Your task to perform on an android device: uninstall "Expedia: Hotels, Flights & Car" Image 0: 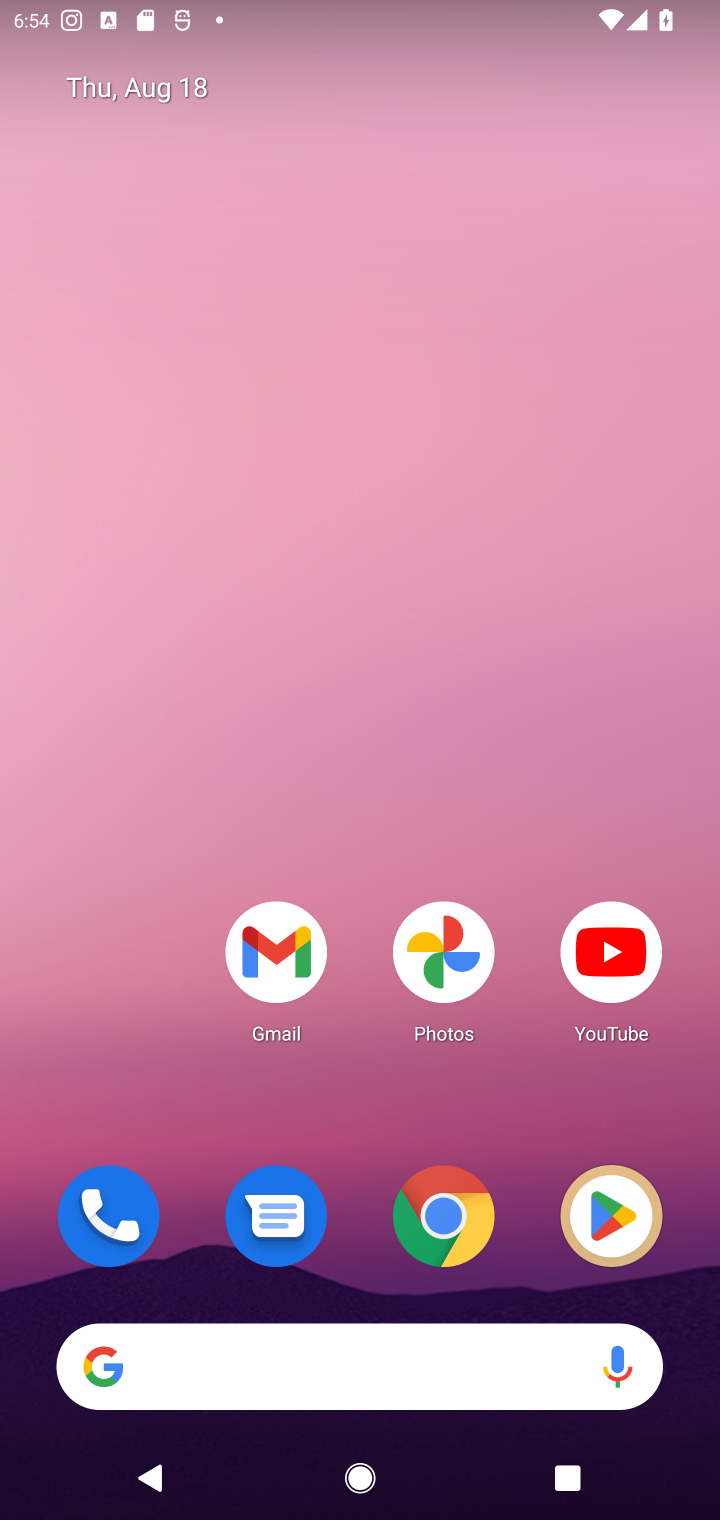
Step 0: click (638, 1180)
Your task to perform on an android device: uninstall "Expedia: Hotels, Flights & Car" Image 1: 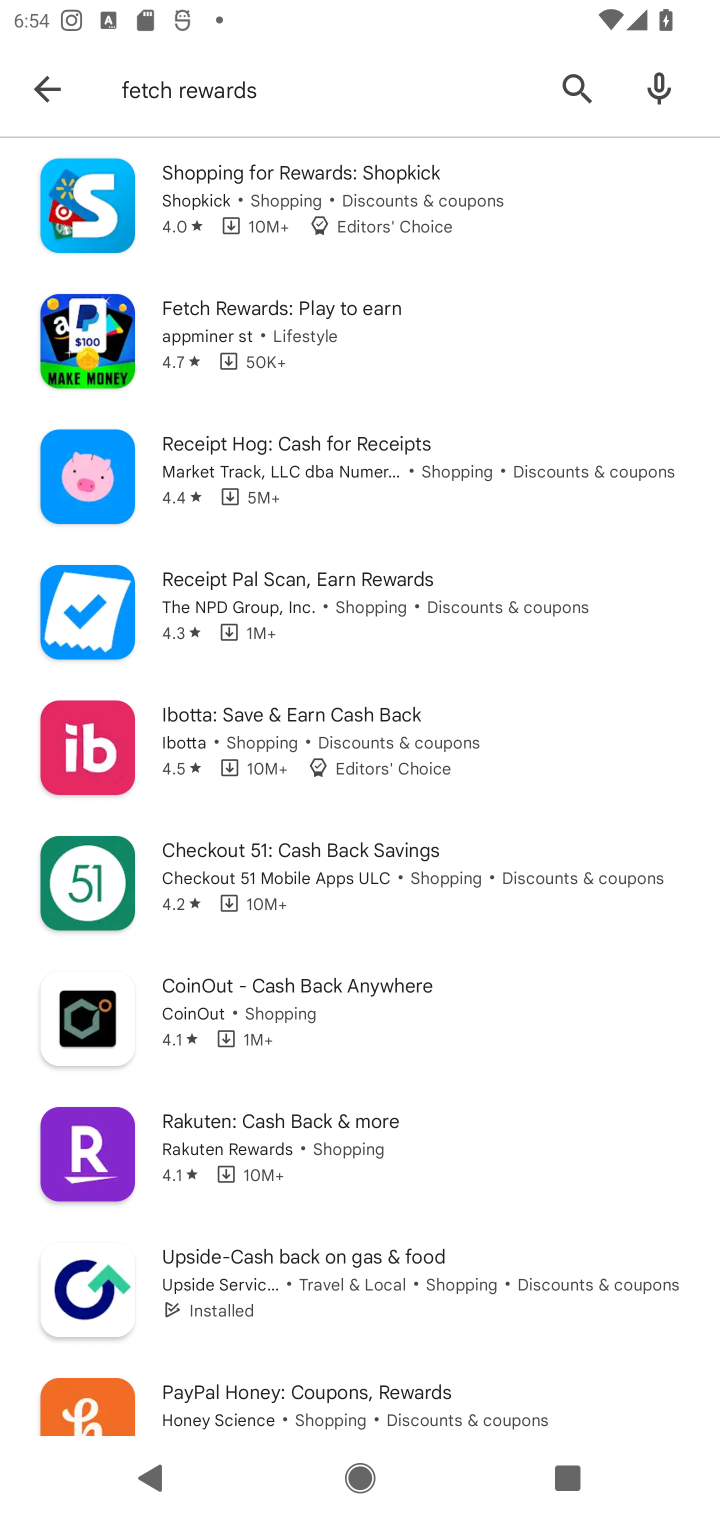
Step 1: click (565, 77)
Your task to perform on an android device: uninstall "Expedia: Hotels, Flights & Car" Image 2: 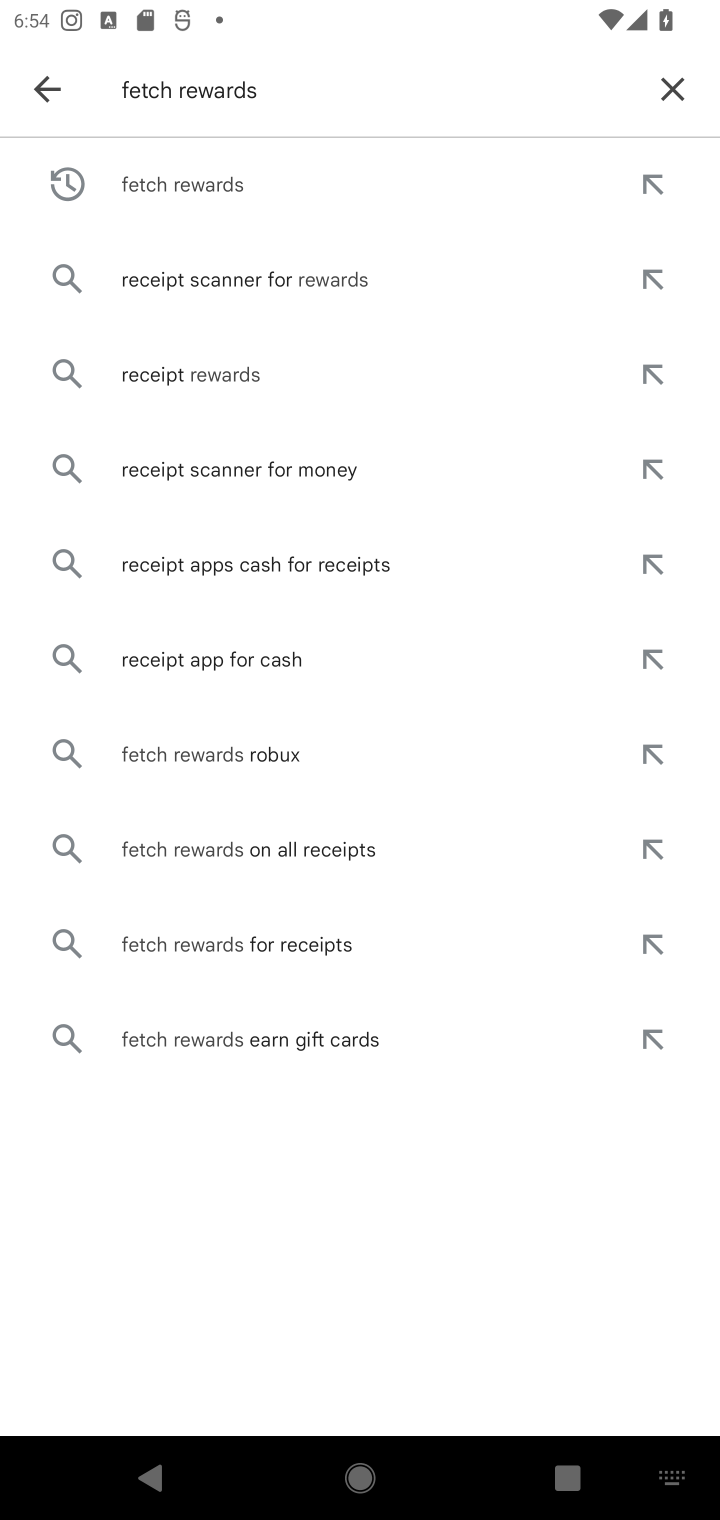
Step 2: click (678, 90)
Your task to perform on an android device: uninstall "Expedia: Hotels, Flights & Car" Image 3: 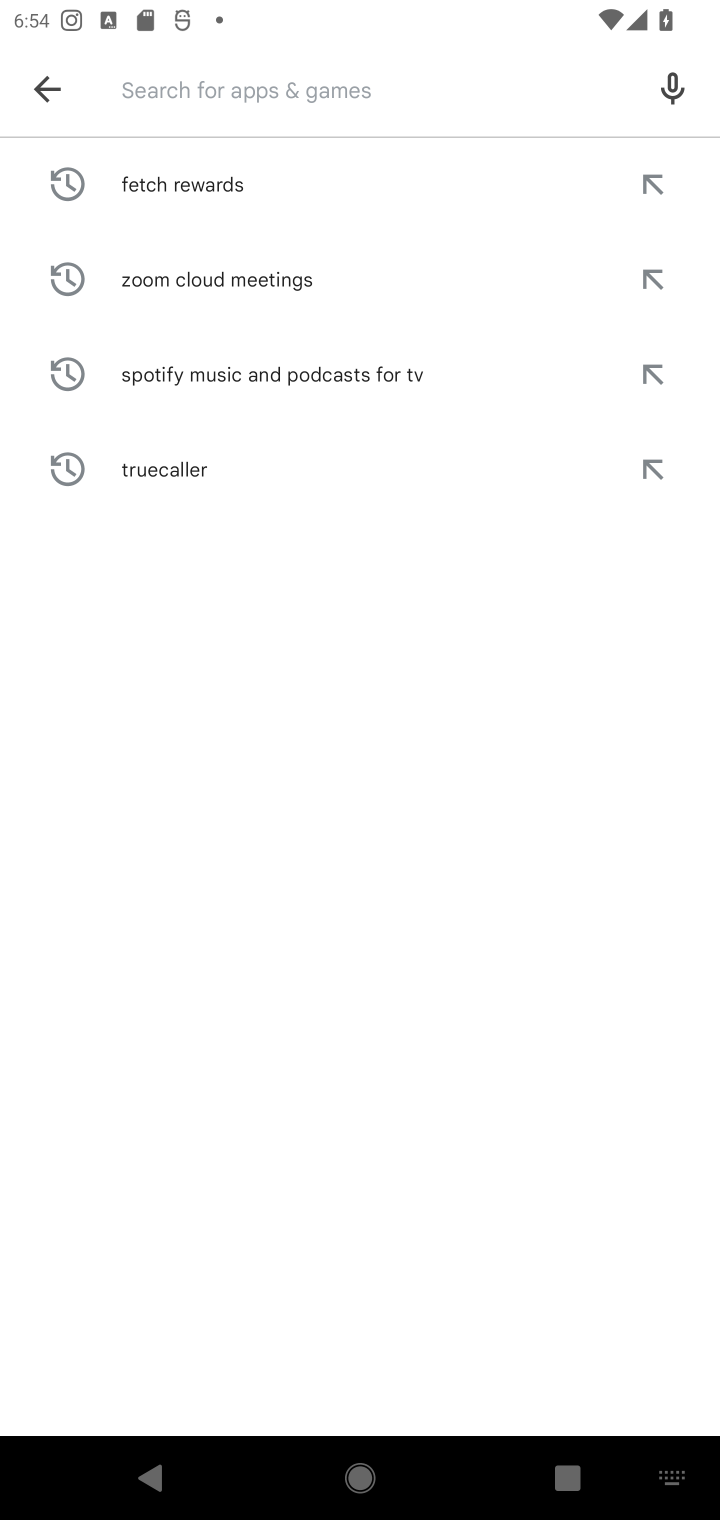
Step 3: type "Expedia: Hotels, Flights & Car"
Your task to perform on an android device: uninstall "Expedia: Hotels, Flights & Car" Image 4: 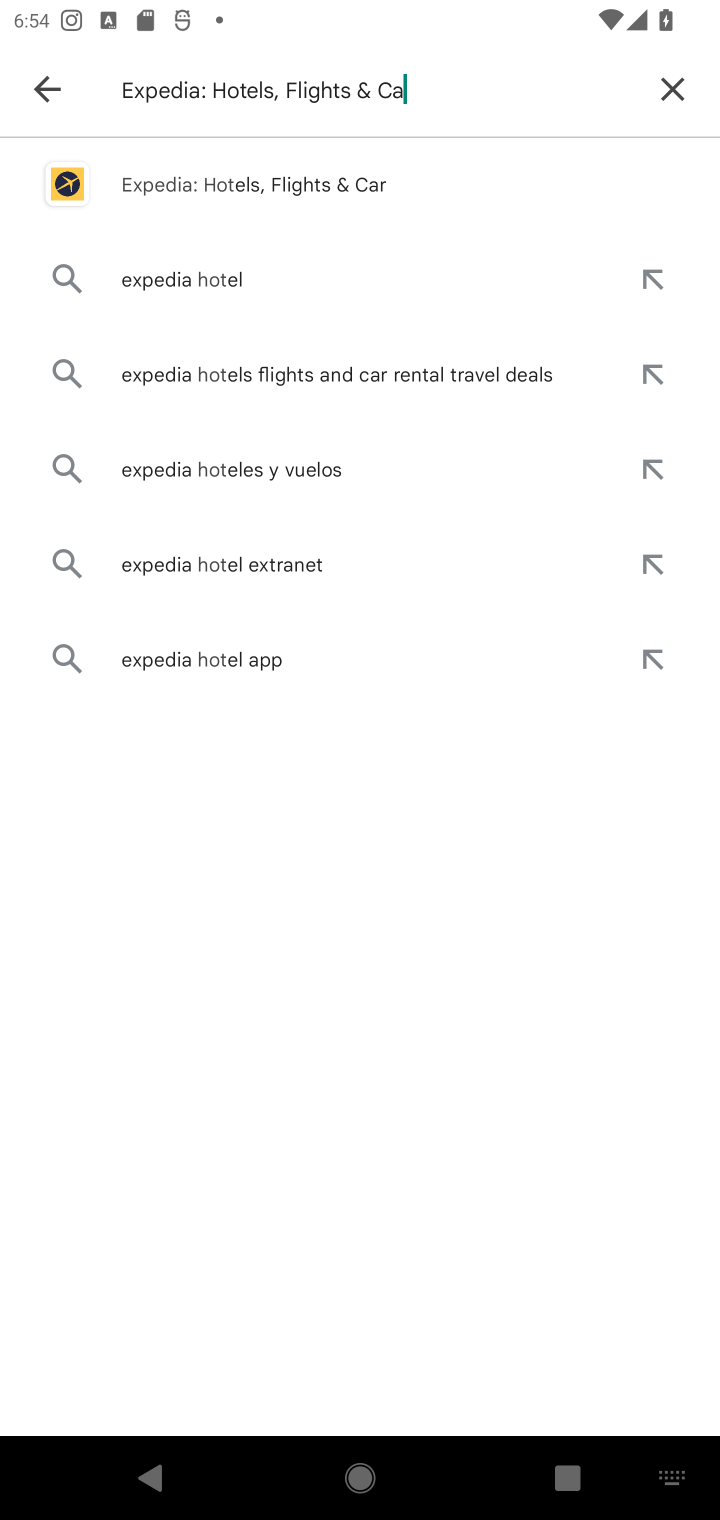
Step 4: type ""
Your task to perform on an android device: uninstall "Expedia: Hotels, Flights & Car" Image 5: 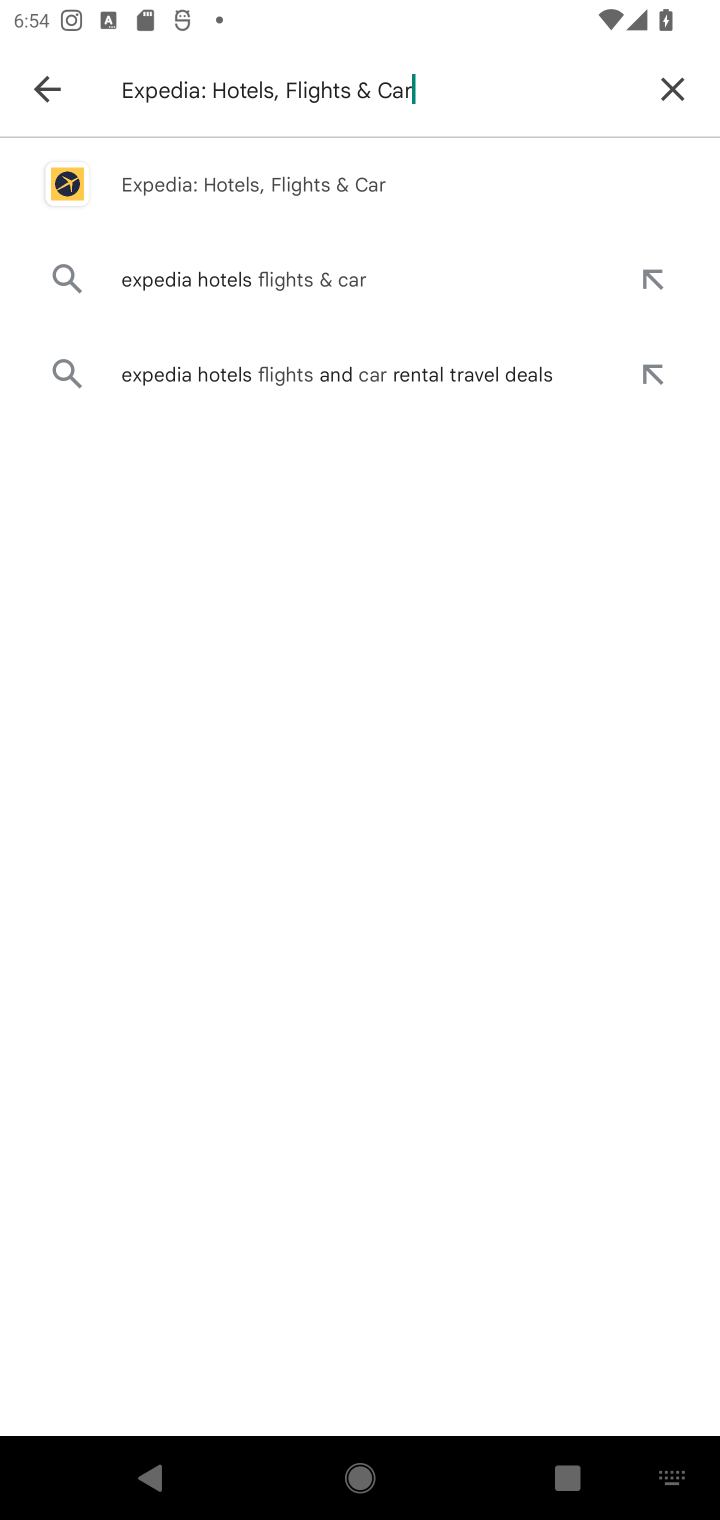
Step 5: click (281, 96)
Your task to perform on an android device: uninstall "Expedia: Hotels, Flights & Car" Image 6: 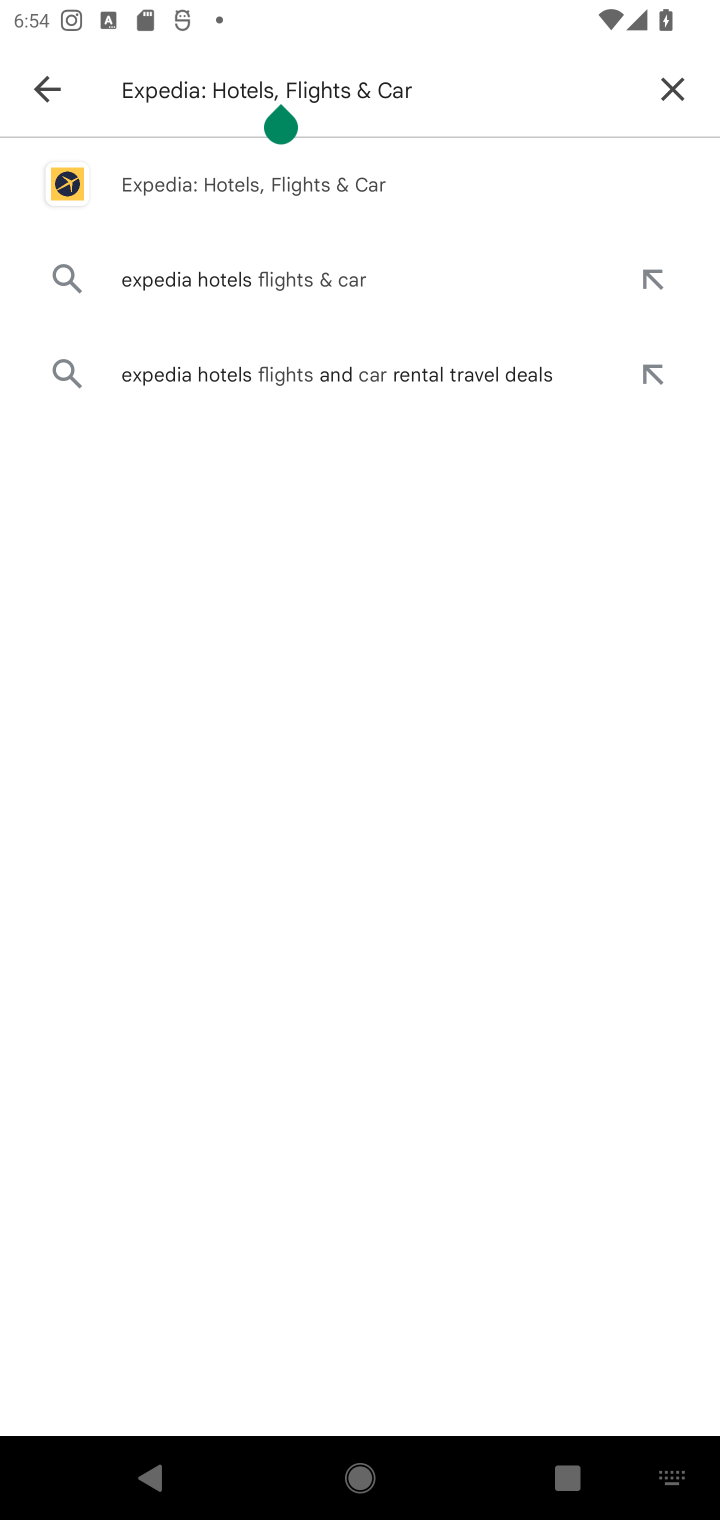
Step 6: click (153, 200)
Your task to perform on an android device: uninstall "Expedia: Hotels, Flights & Car" Image 7: 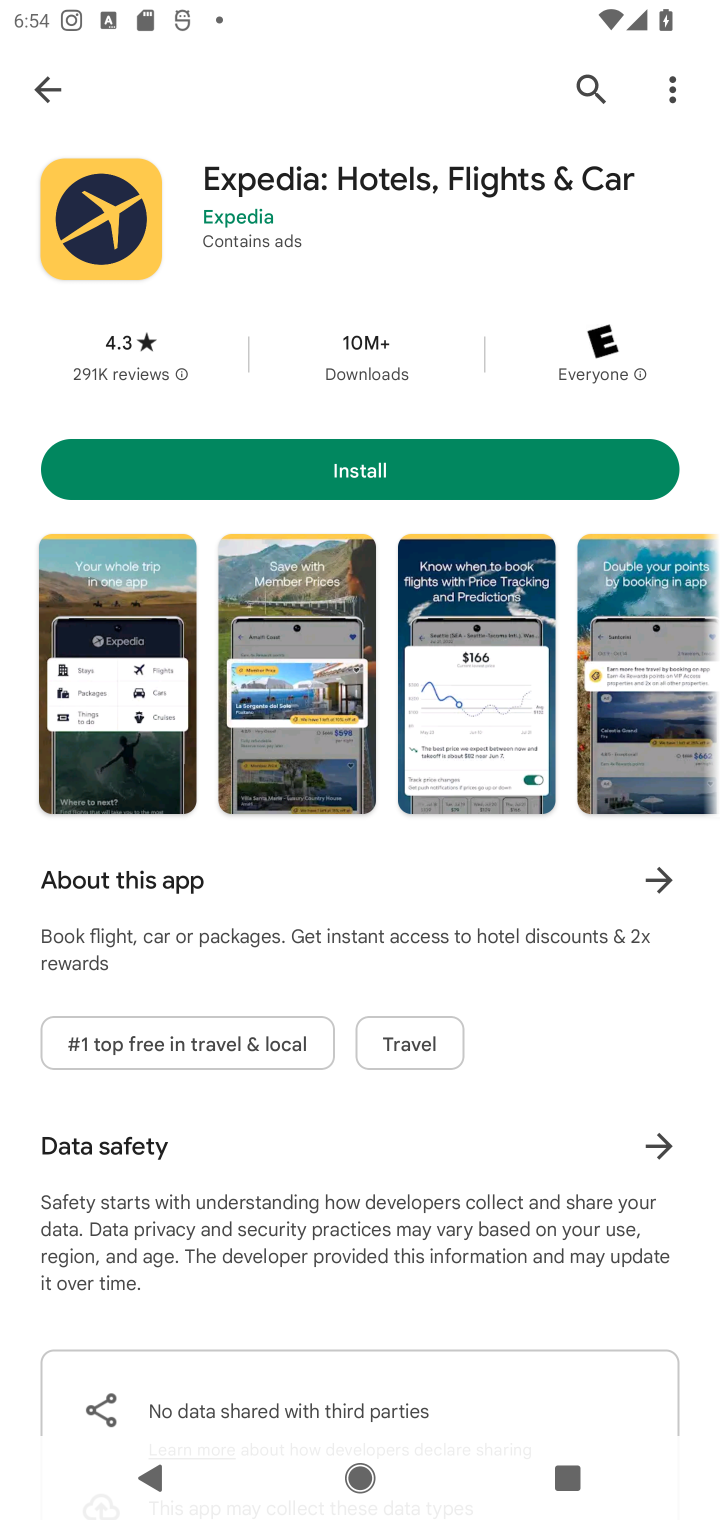
Step 7: task complete